Your task to perform on an android device: delete browsing data in the chrome app Image 0: 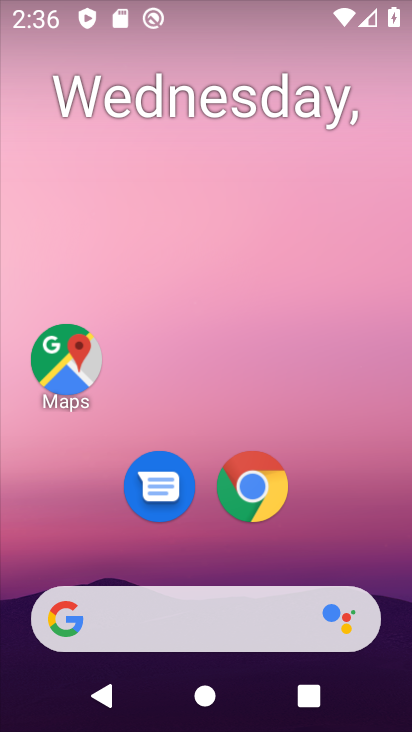
Step 0: click (249, 499)
Your task to perform on an android device: delete browsing data in the chrome app Image 1: 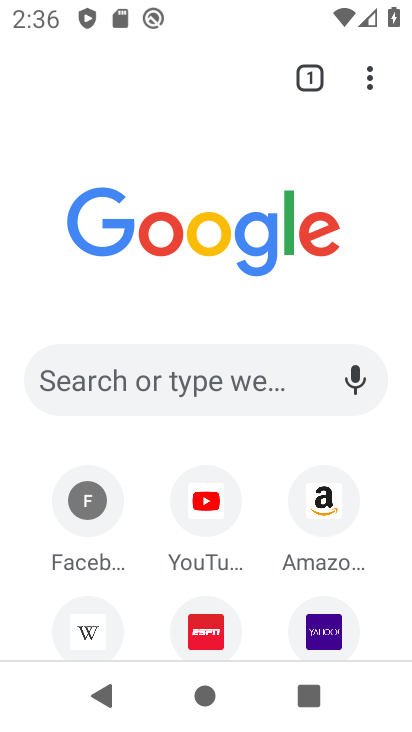
Step 1: click (367, 82)
Your task to perform on an android device: delete browsing data in the chrome app Image 2: 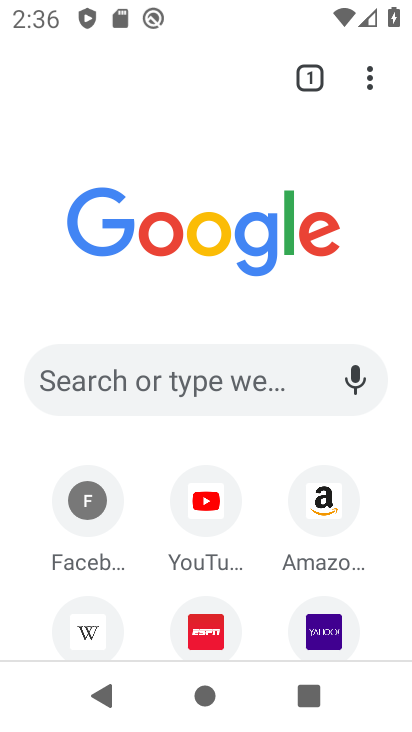
Step 2: click (342, 100)
Your task to perform on an android device: delete browsing data in the chrome app Image 3: 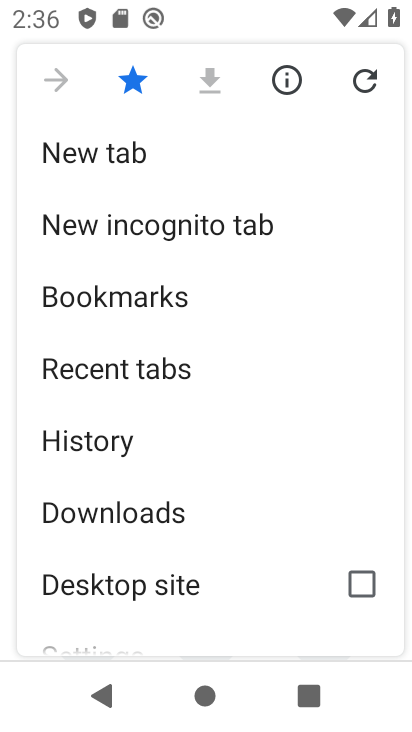
Step 3: click (149, 444)
Your task to perform on an android device: delete browsing data in the chrome app Image 4: 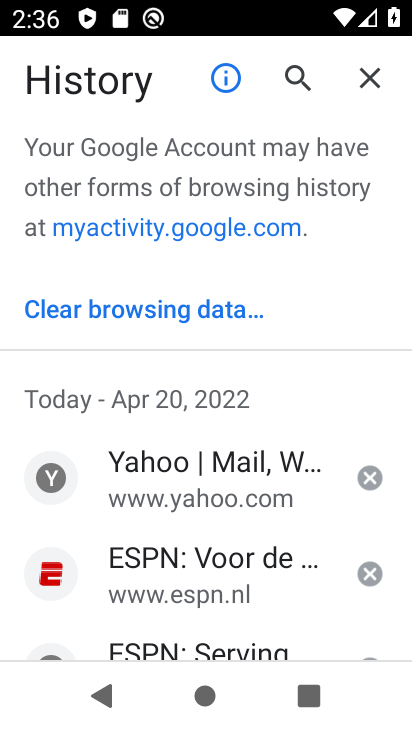
Step 4: click (152, 313)
Your task to perform on an android device: delete browsing data in the chrome app Image 5: 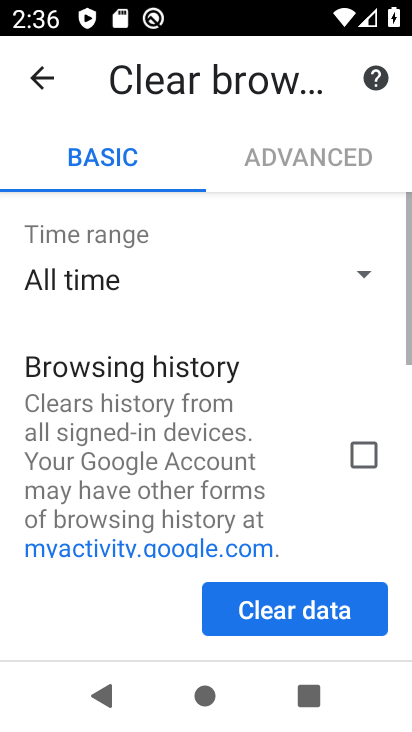
Step 5: click (356, 464)
Your task to perform on an android device: delete browsing data in the chrome app Image 6: 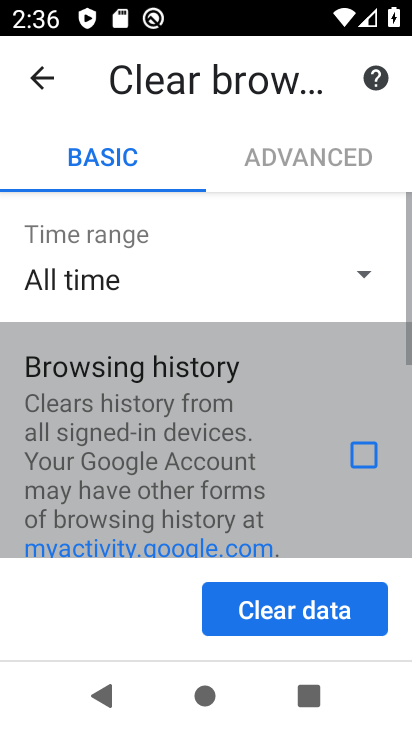
Step 6: click (324, 606)
Your task to perform on an android device: delete browsing data in the chrome app Image 7: 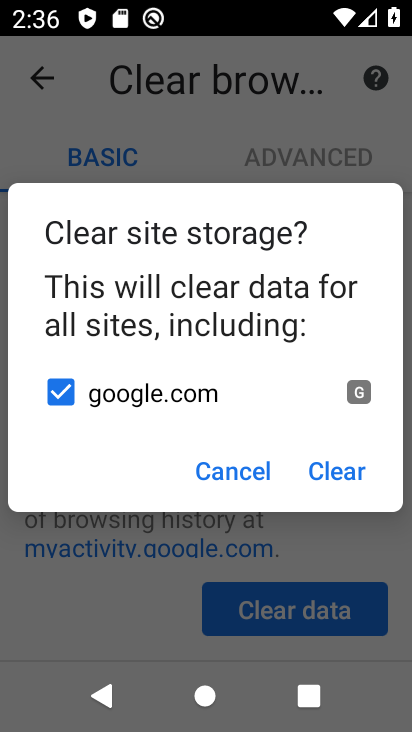
Step 7: click (326, 471)
Your task to perform on an android device: delete browsing data in the chrome app Image 8: 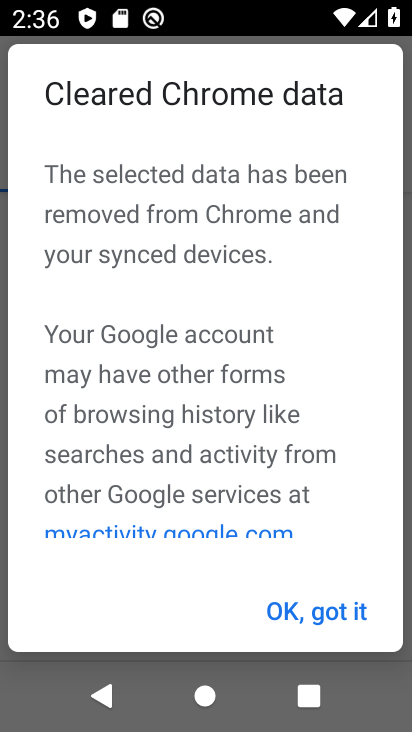
Step 8: task complete